Your task to perform on an android device: What's on my calendar today? Image 0: 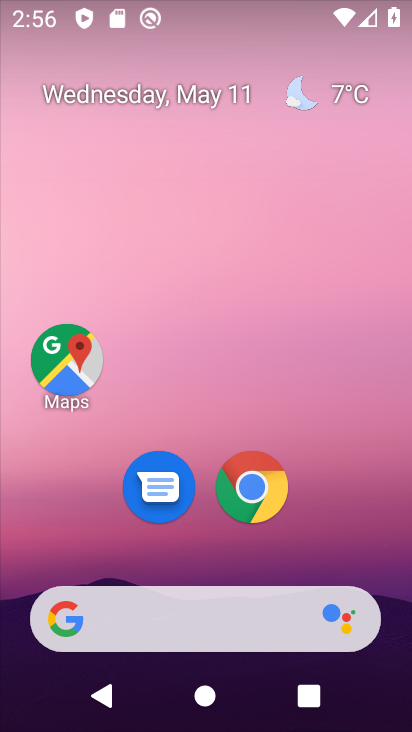
Step 0: drag from (315, 561) to (288, 20)
Your task to perform on an android device: What's on my calendar today? Image 1: 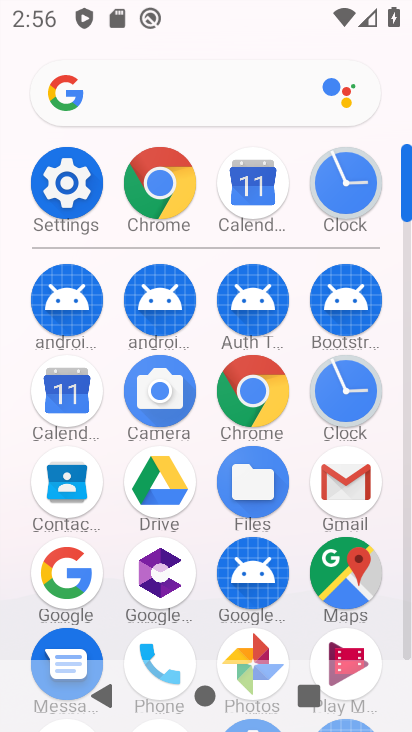
Step 1: click (73, 411)
Your task to perform on an android device: What's on my calendar today? Image 2: 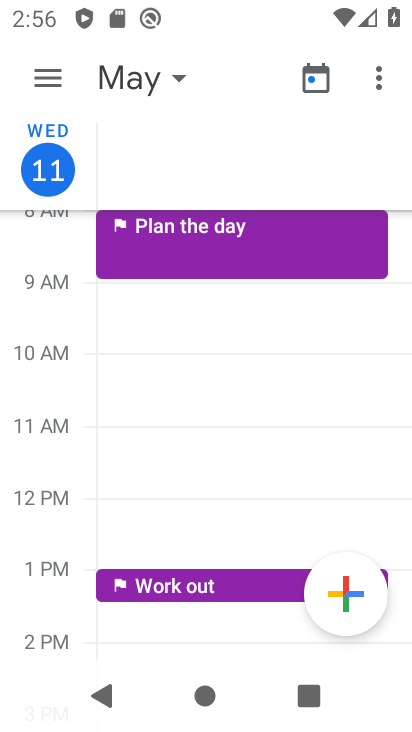
Step 2: click (181, 74)
Your task to perform on an android device: What's on my calendar today? Image 3: 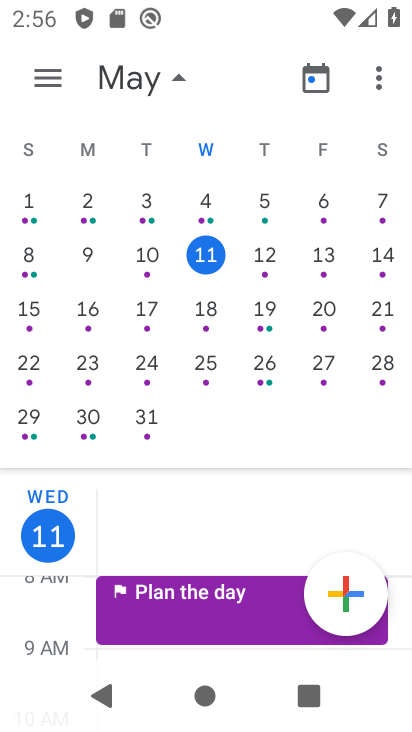
Step 3: click (198, 256)
Your task to perform on an android device: What's on my calendar today? Image 4: 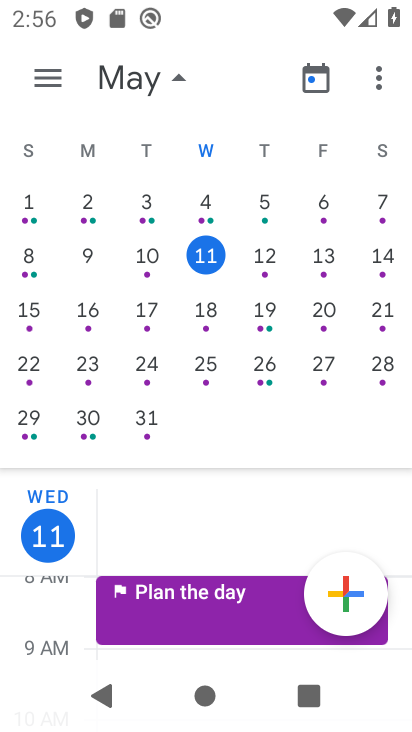
Step 4: task complete